Your task to perform on an android device: Show me popular games on the Play Store Image 0: 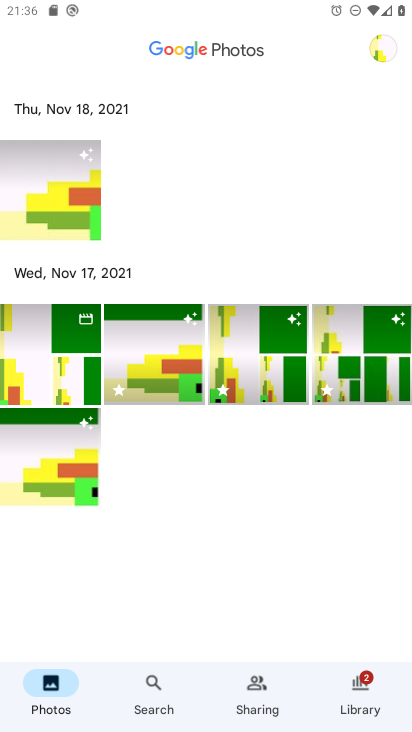
Step 0: press home button
Your task to perform on an android device: Show me popular games on the Play Store Image 1: 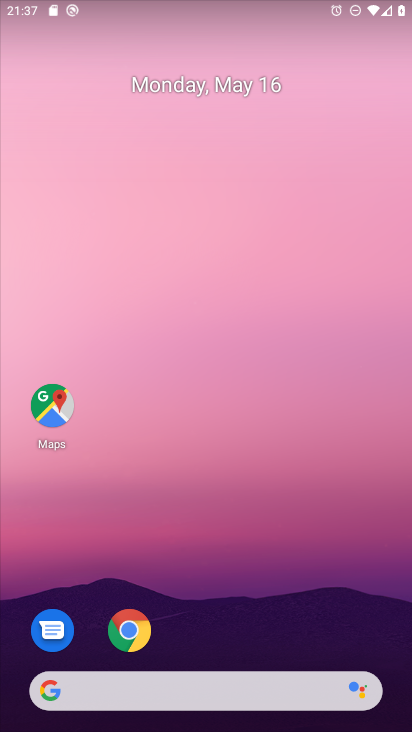
Step 1: drag from (237, 633) to (187, 94)
Your task to perform on an android device: Show me popular games on the Play Store Image 2: 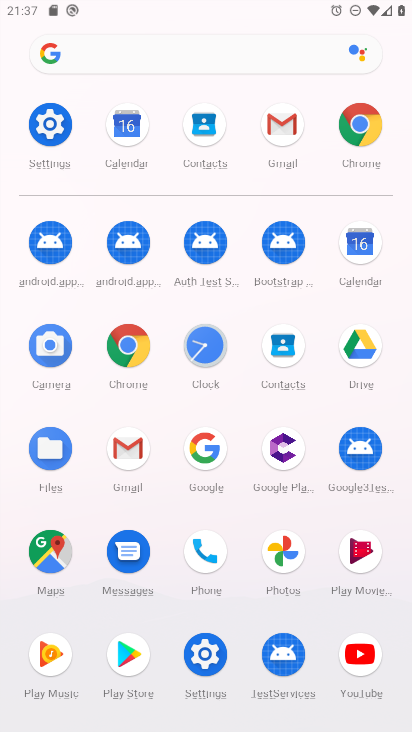
Step 2: click (135, 651)
Your task to perform on an android device: Show me popular games on the Play Store Image 3: 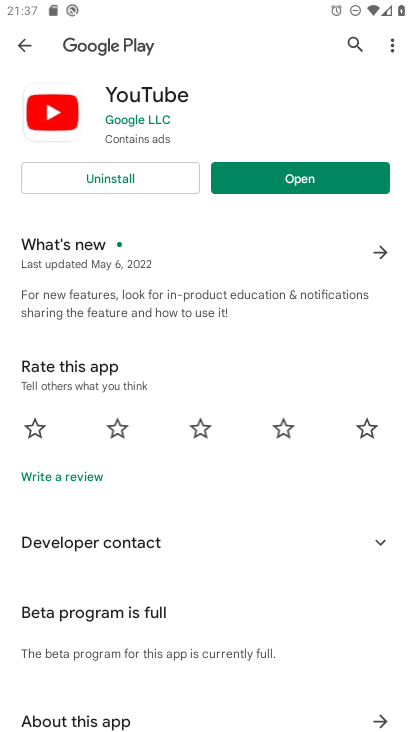
Step 3: click (39, 40)
Your task to perform on an android device: Show me popular games on the Play Store Image 4: 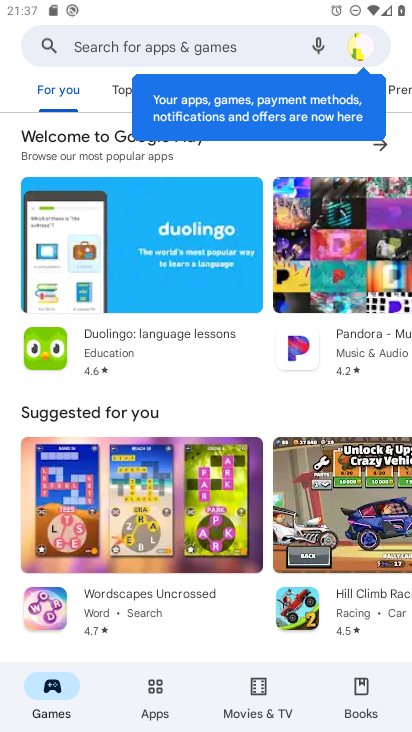
Step 4: click (86, 42)
Your task to perform on an android device: Show me popular games on the Play Store Image 5: 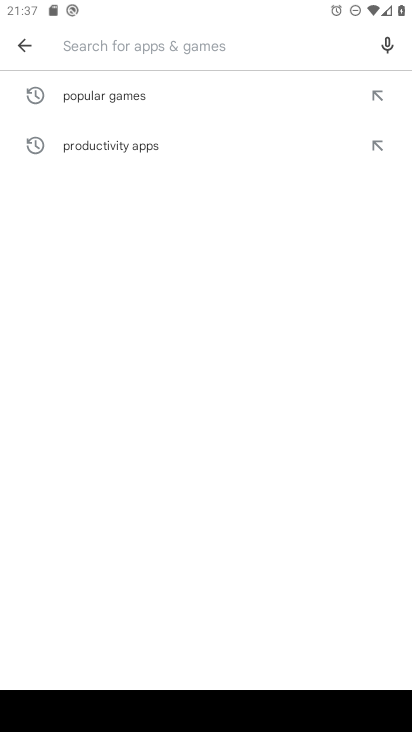
Step 5: click (104, 97)
Your task to perform on an android device: Show me popular games on the Play Store Image 6: 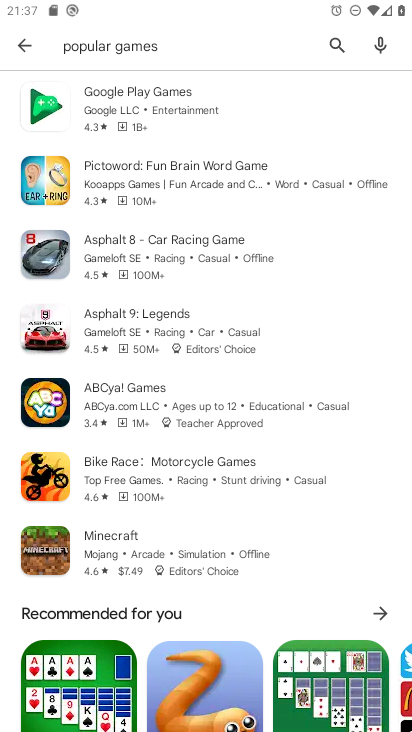
Step 6: task complete